Your task to perform on an android device: toggle notification dots Image 0: 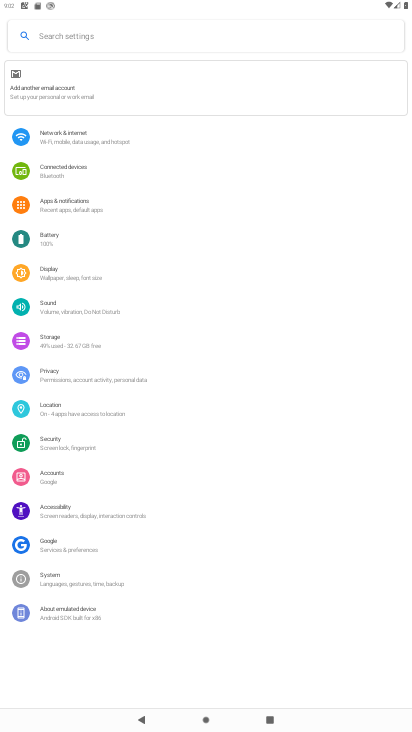
Step 0: click (52, 201)
Your task to perform on an android device: toggle notification dots Image 1: 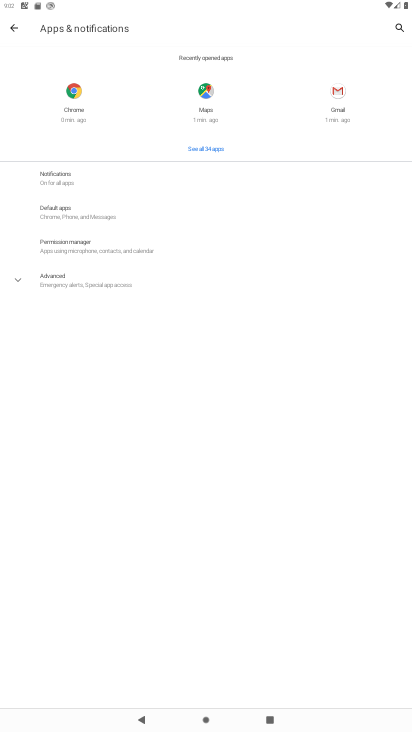
Step 1: click (68, 188)
Your task to perform on an android device: toggle notification dots Image 2: 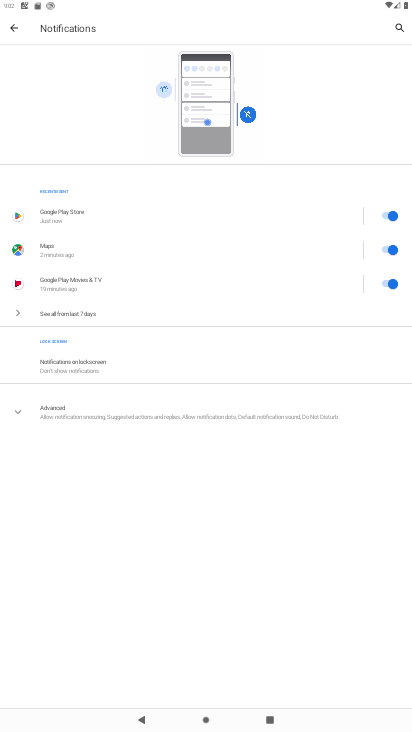
Step 2: click (59, 415)
Your task to perform on an android device: toggle notification dots Image 3: 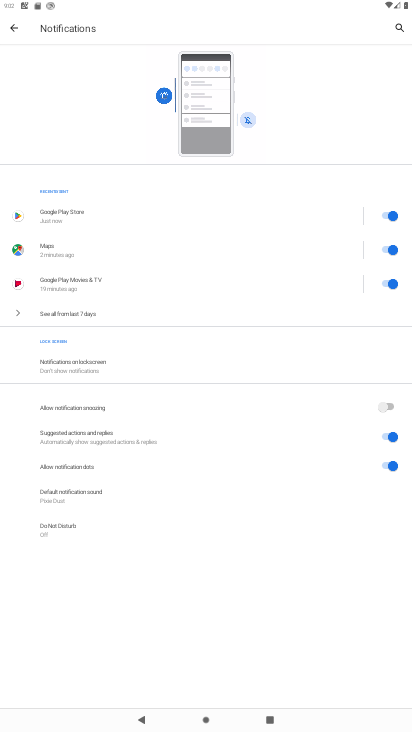
Step 3: click (389, 462)
Your task to perform on an android device: toggle notification dots Image 4: 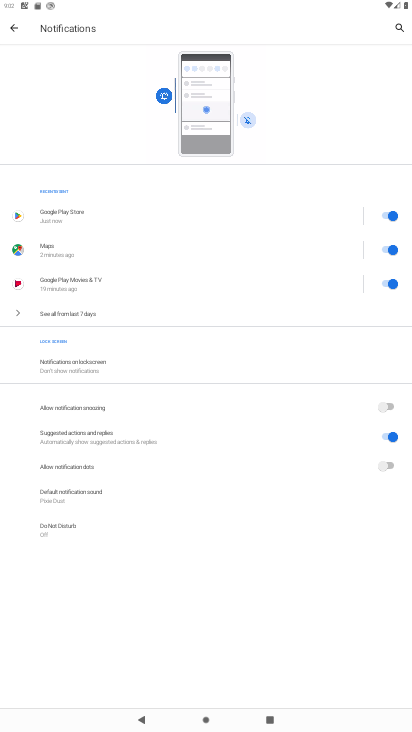
Step 4: task complete